Your task to perform on an android device: Check the news Image 0: 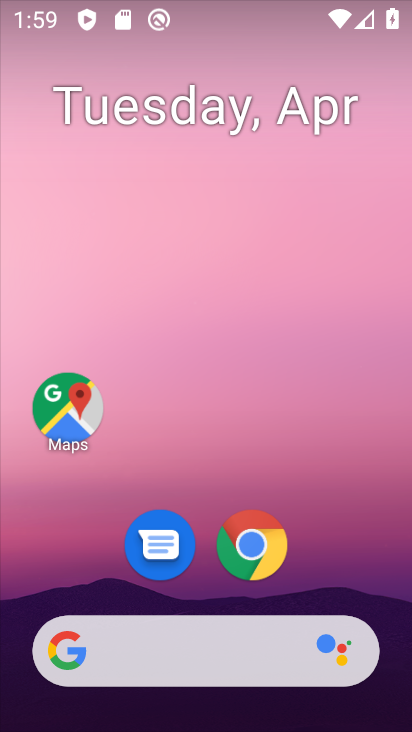
Step 0: click (274, 554)
Your task to perform on an android device: Check the news Image 1: 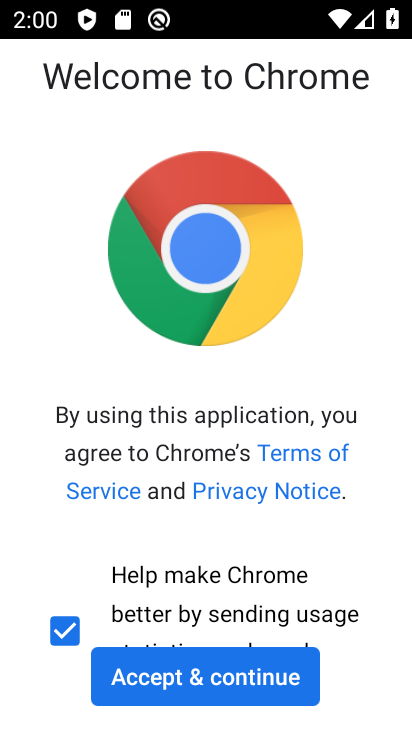
Step 1: click (267, 668)
Your task to perform on an android device: Check the news Image 2: 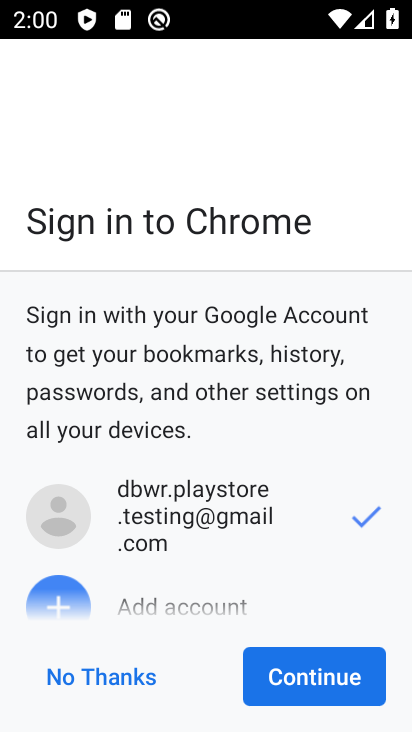
Step 2: click (280, 675)
Your task to perform on an android device: Check the news Image 3: 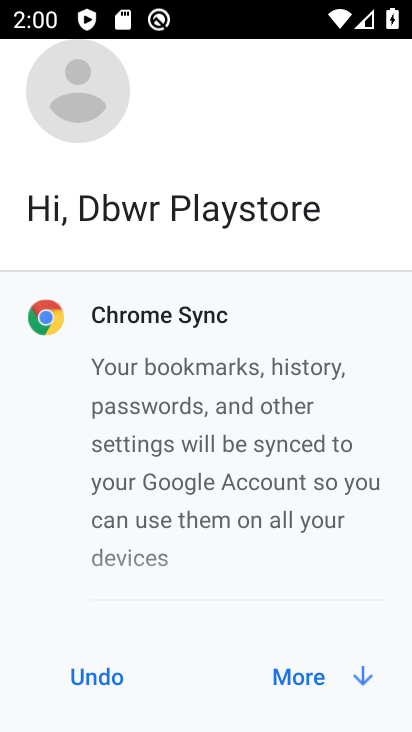
Step 3: click (280, 675)
Your task to perform on an android device: Check the news Image 4: 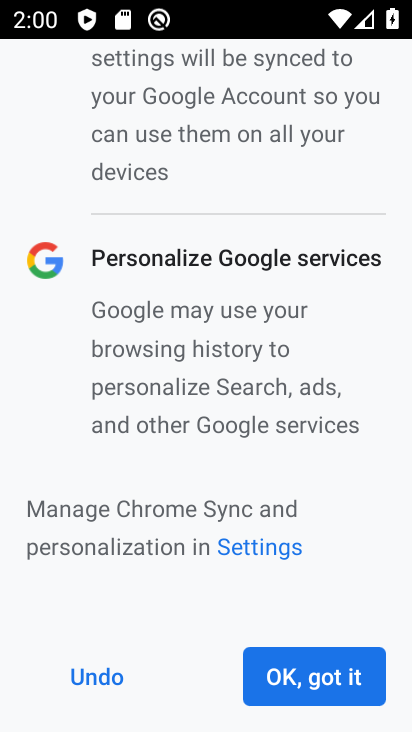
Step 4: click (280, 675)
Your task to perform on an android device: Check the news Image 5: 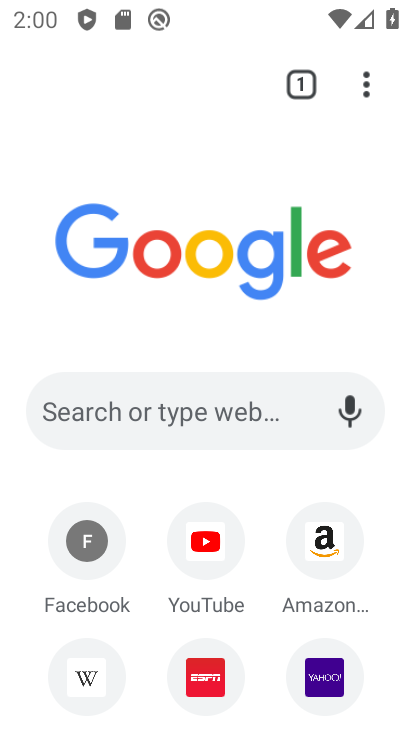
Step 5: click (244, 431)
Your task to perform on an android device: Check the news Image 6: 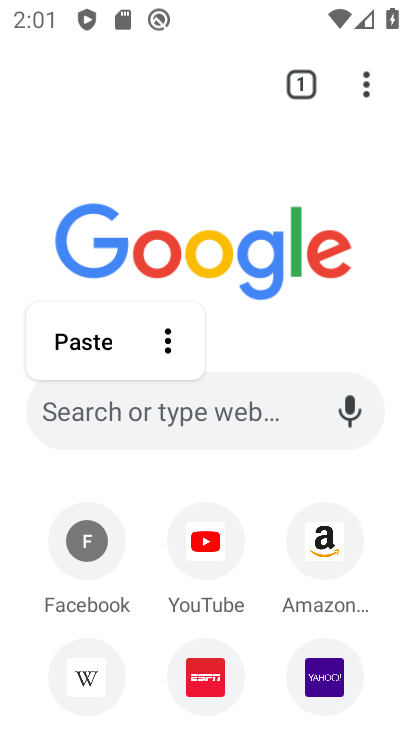
Step 6: type "news"
Your task to perform on an android device: Check the news Image 7: 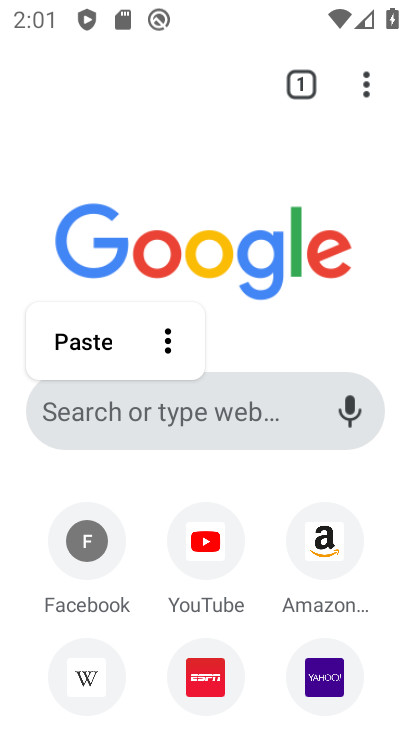
Step 7: click (246, 416)
Your task to perform on an android device: Check the news Image 8: 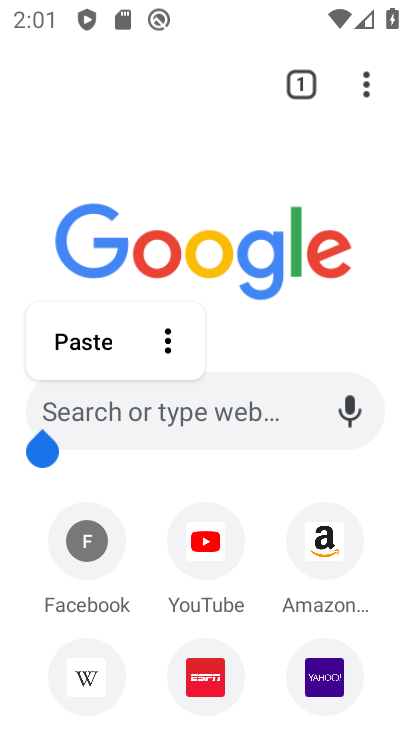
Step 8: click (254, 427)
Your task to perform on an android device: Check the news Image 9: 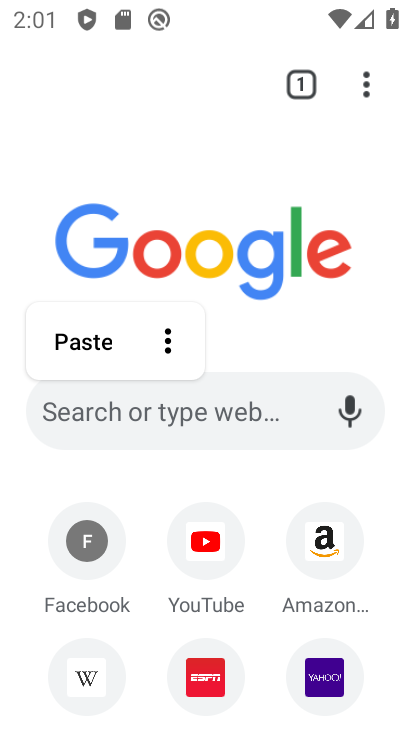
Step 9: click (307, 333)
Your task to perform on an android device: Check the news Image 10: 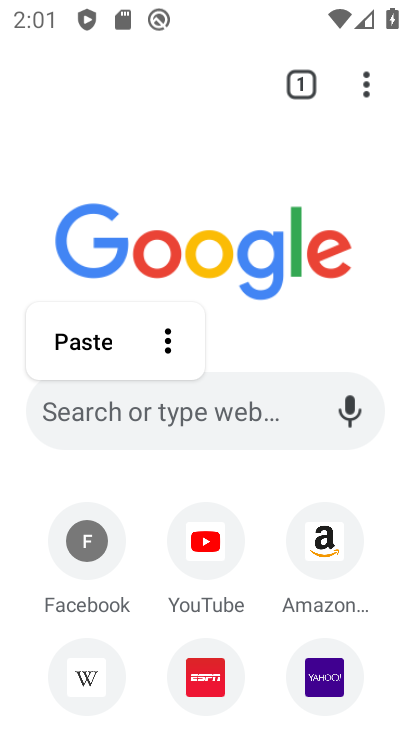
Step 10: click (262, 403)
Your task to perform on an android device: Check the news Image 11: 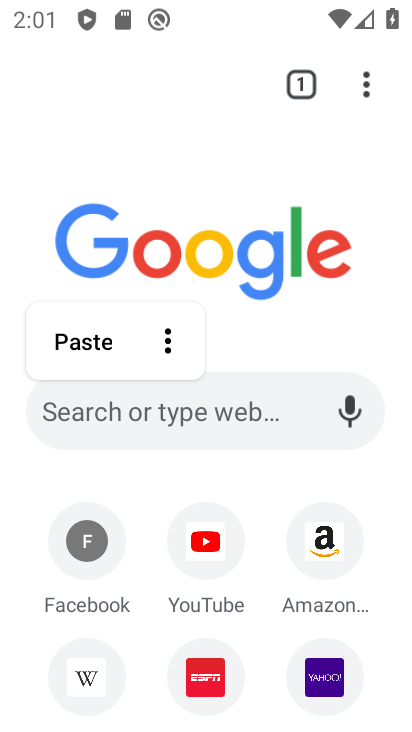
Step 11: click (239, 421)
Your task to perform on an android device: Check the news Image 12: 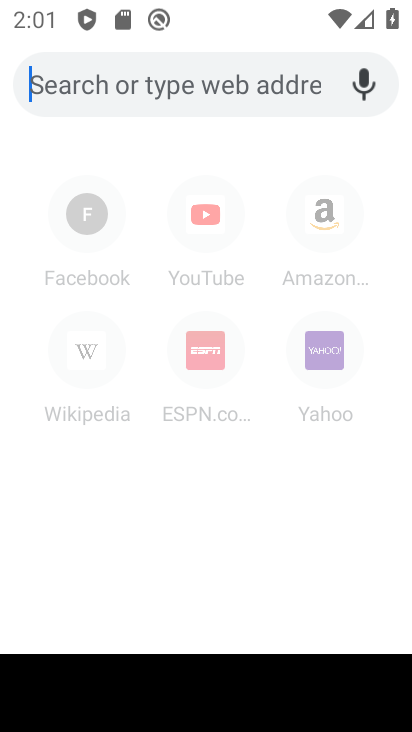
Step 12: type "news"
Your task to perform on an android device: Check the news Image 13: 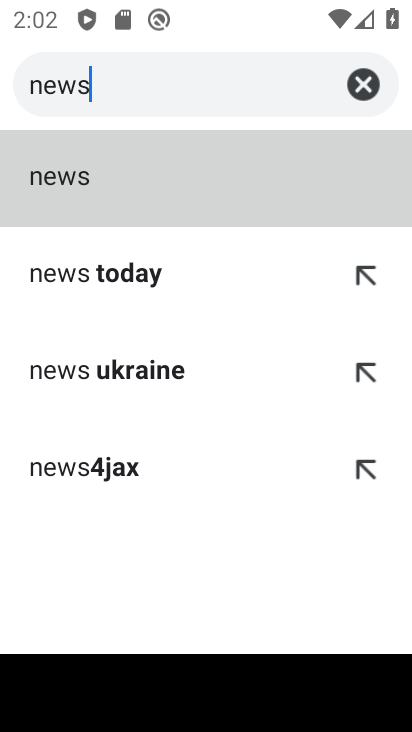
Step 13: click (261, 171)
Your task to perform on an android device: Check the news Image 14: 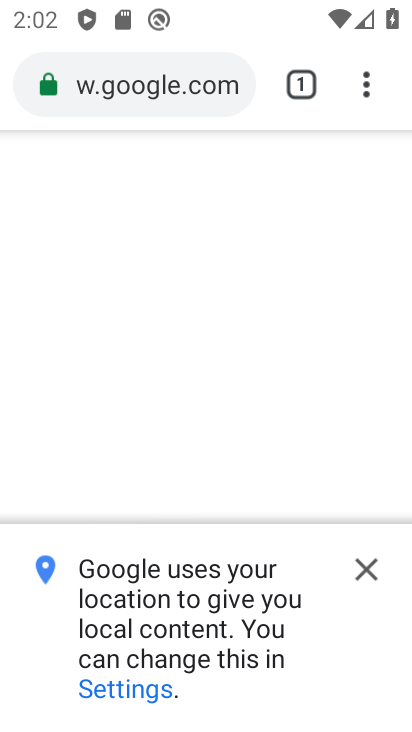
Step 14: click (360, 570)
Your task to perform on an android device: Check the news Image 15: 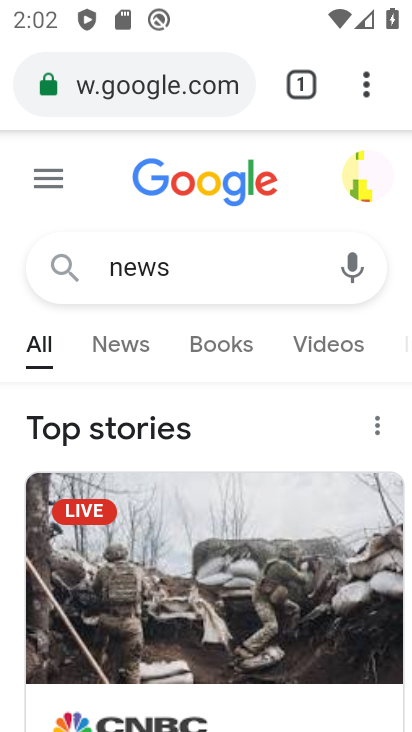
Step 15: click (137, 359)
Your task to perform on an android device: Check the news Image 16: 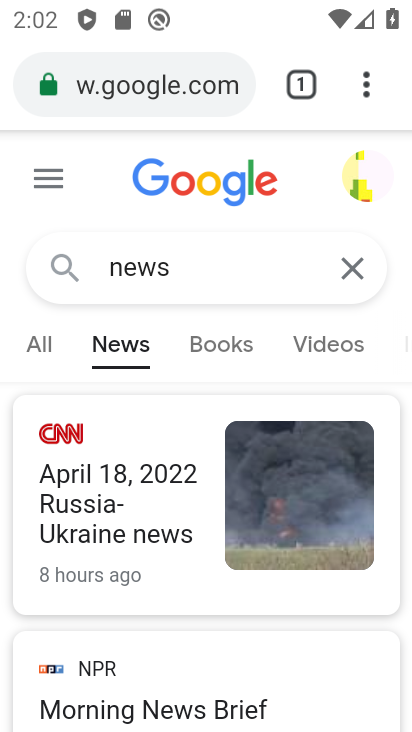
Step 16: task complete